Your task to perform on an android device: Check the weather Image 0: 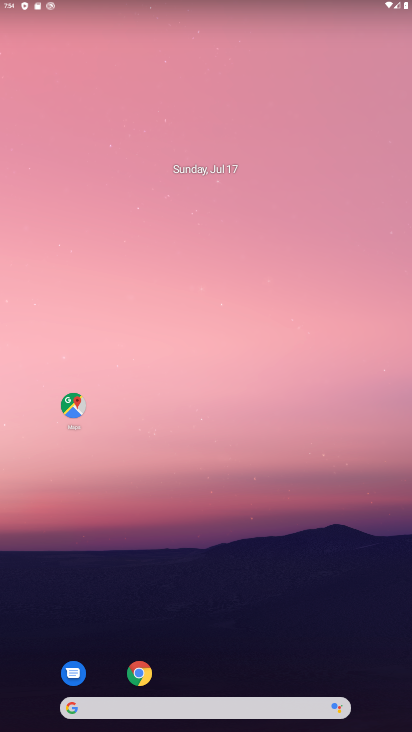
Step 0: drag from (258, 650) to (182, 38)
Your task to perform on an android device: Check the weather Image 1: 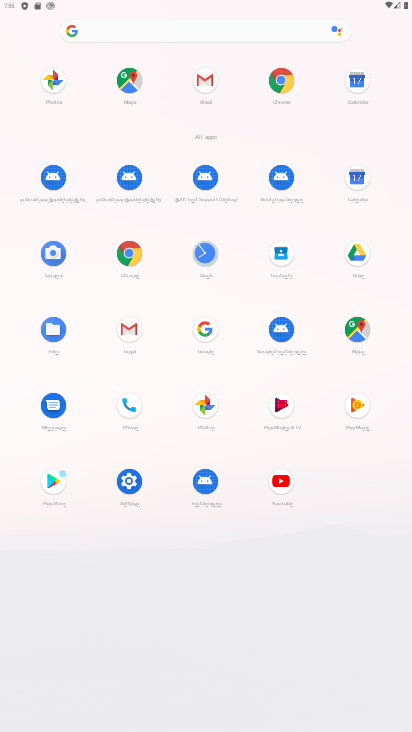
Step 1: click (205, 326)
Your task to perform on an android device: Check the weather Image 2: 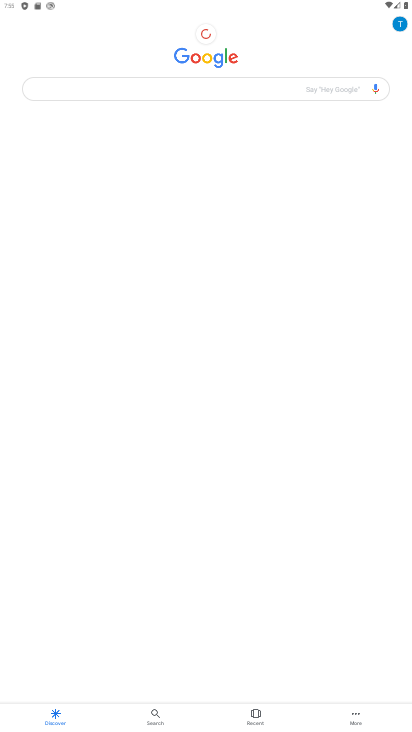
Step 2: click (186, 91)
Your task to perform on an android device: Check the weather Image 3: 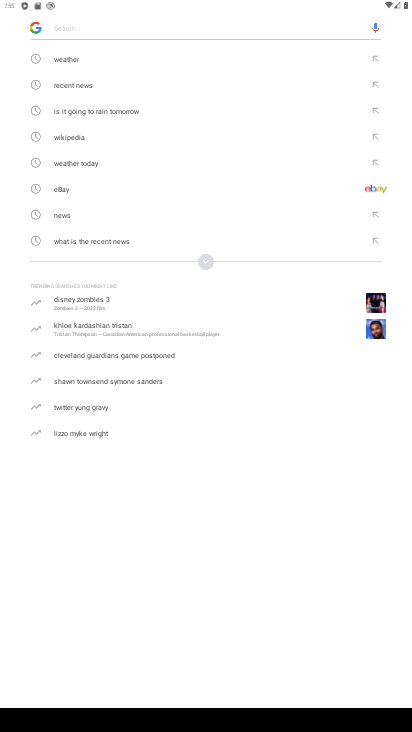
Step 3: click (61, 66)
Your task to perform on an android device: Check the weather Image 4: 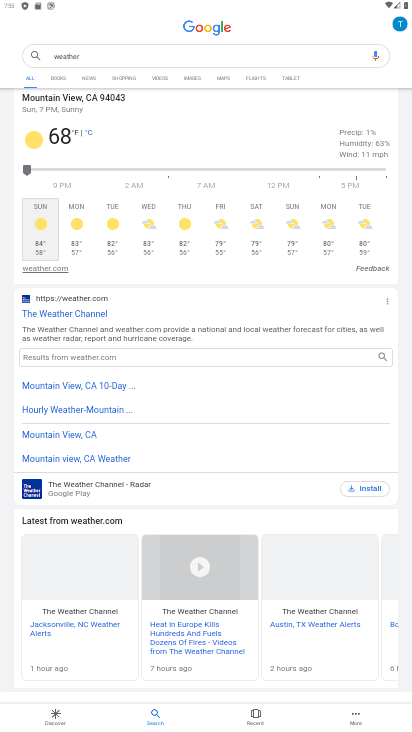
Step 4: task complete